Your task to perform on an android device: turn off sleep mode Image 0: 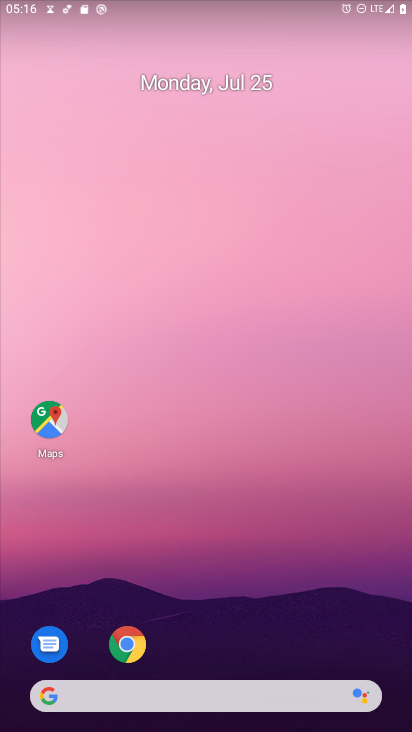
Step 0: press home button
Your task to perform on an android device: turn off sleep mode Image 1: 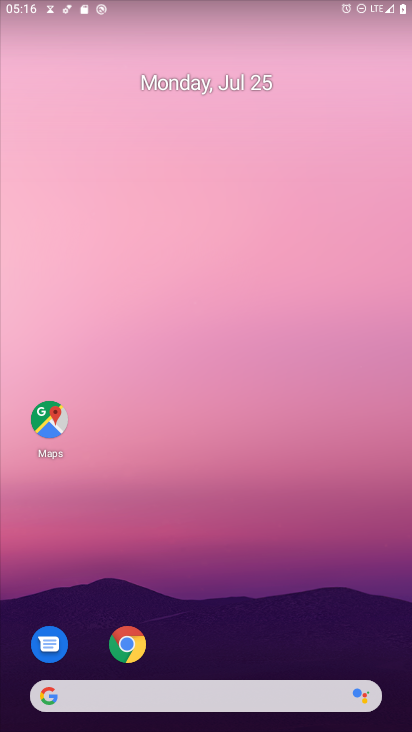
Step 1: drag from (289, 635) to (247, 84)
Your task to perform on an android device: turn off sleep mode Image 2: 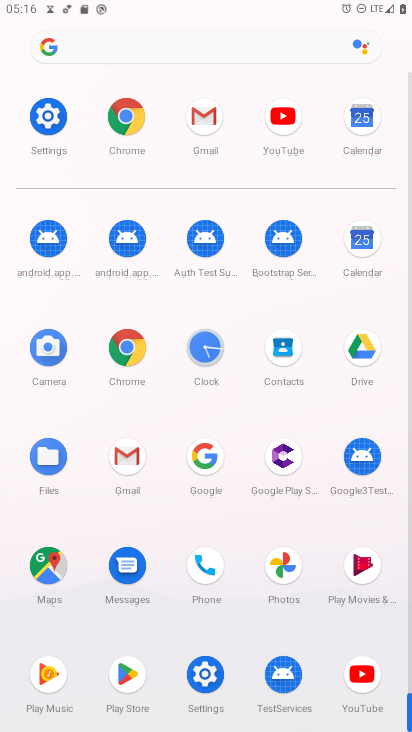
Step 2: click (48, 128)
Your task to perform on an android device: turn off sleep mode Image 3: 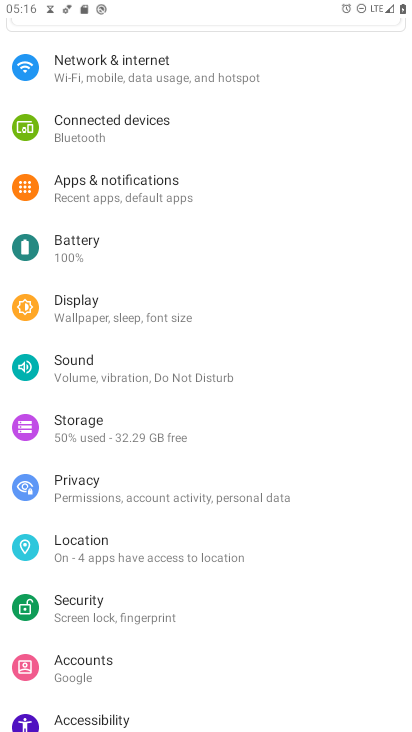
Step 3: click (84, 324)
Your task to perform on an android device: turn off sleep mode Image 4: 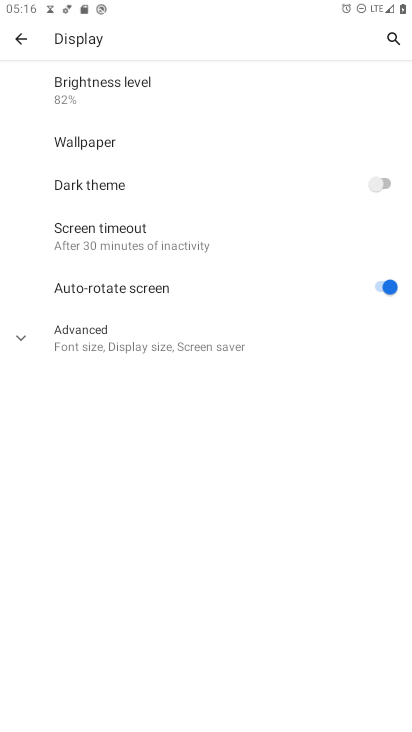
Step 4: click (24, 340)
Your task to perform on an android device: turn off sleep mode Image 5: 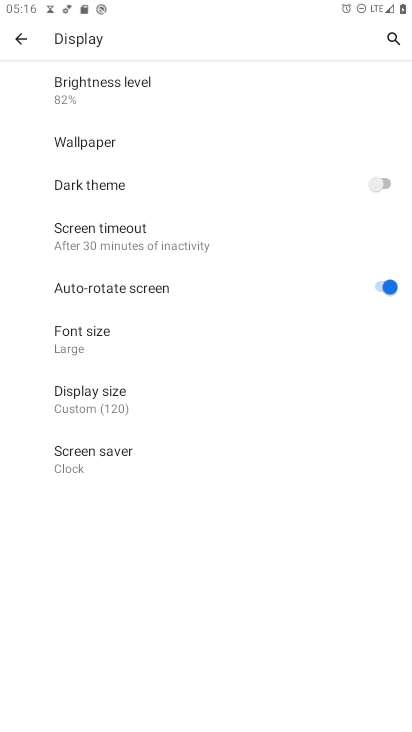
Step 5: task complete